Your task to perform on an android device: delete the emails in spam in the gmail app Image 0: 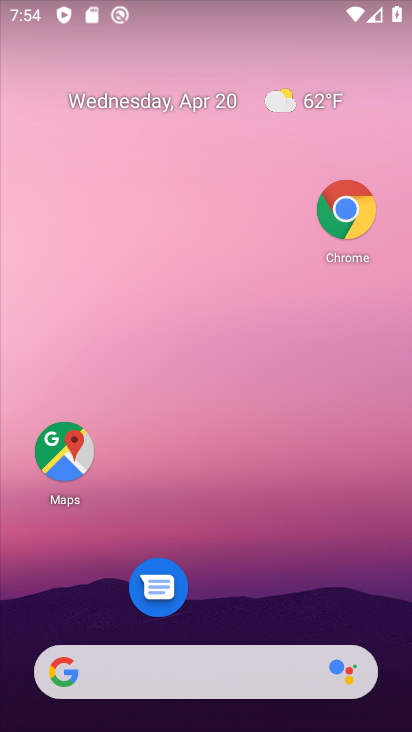
Step 0: drag from (233, 611) to (153, 32)
Your task to perform on an android device: delete the emails in spam in the gmail app Image 1: 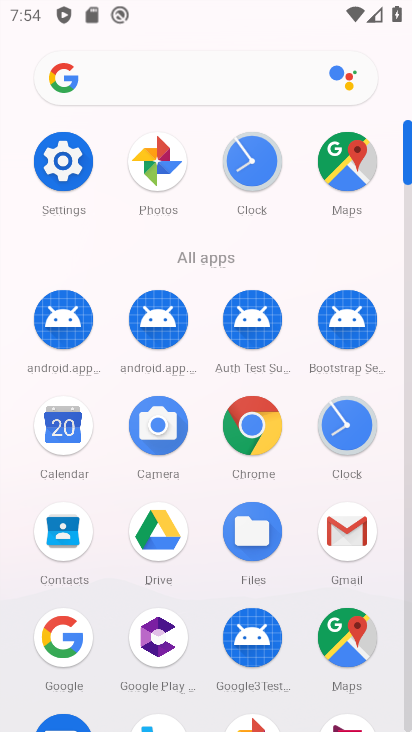
Step 1: click (349, 528)
Your task to perform on an android device: delete the emails in spam in the gmail app Image 2: 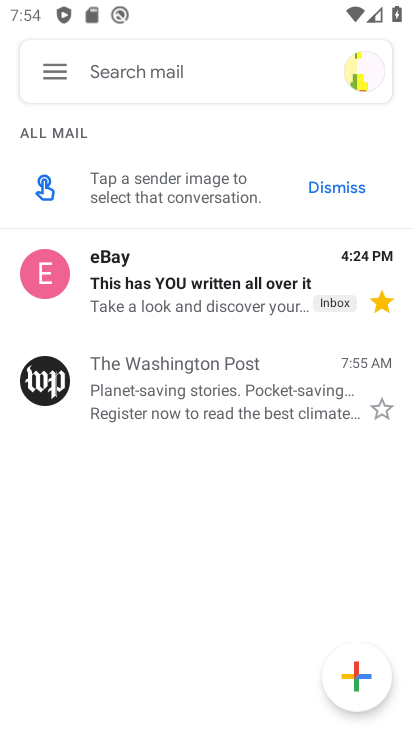
Step 2: click (50, 82)
Your task to perform on an android device: delete the emails in spam in the gmail app Image 3: 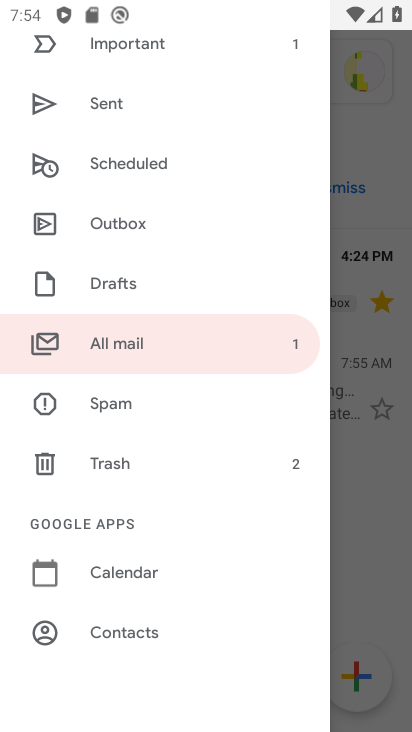
Step 3: click (44, 405)
Your task to perform on an android device: delete the emails in spam in the gmail app Image 4: 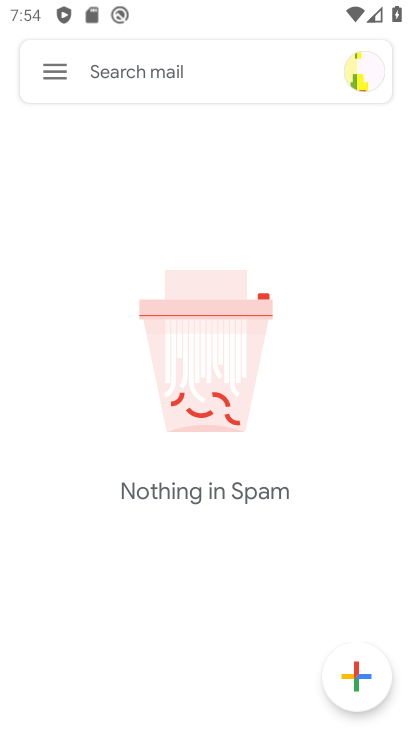
Step 4: task complete